Your task to perform on an android device: Open Yahoo.com Image 0: 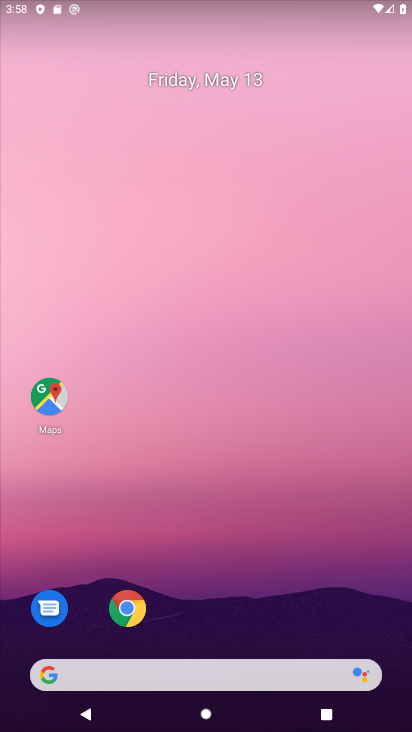
Step 0: drag from (217, 677) to (237, 2)
Your task to perform on an android device: Open Yahoo.com Image 1: 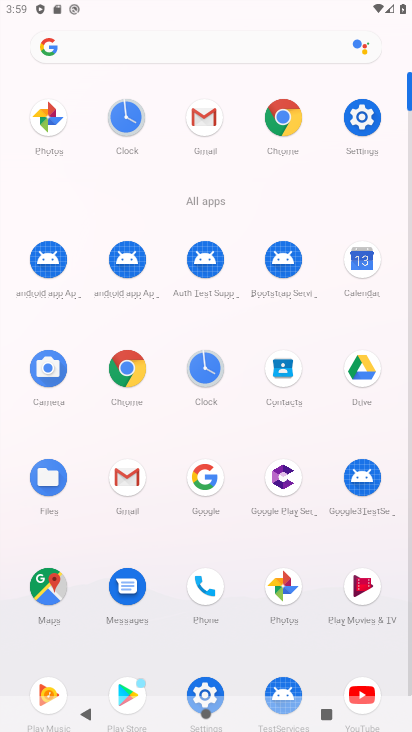
Step 1: click (137, 368)
Your task to perform on an android device: Open Yahoo.com Image 2: 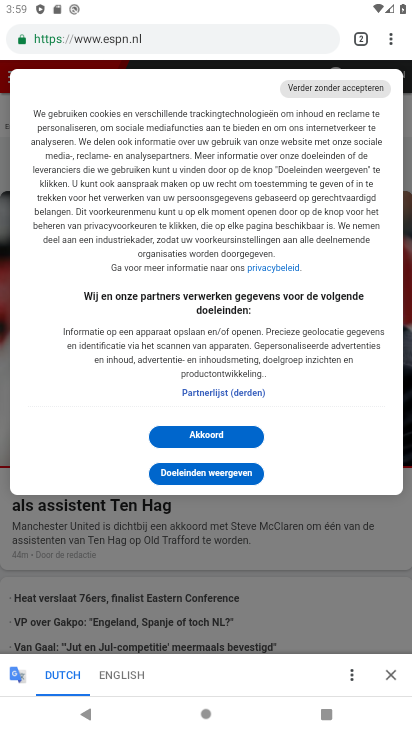
Step 2: click (302, 36)
Your task to perform on an android device: Open Yahoo.com Image 3: 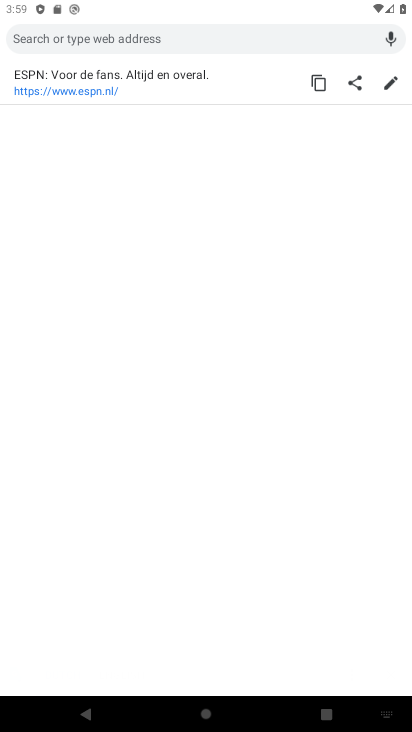
Step 3: type "yahoo.com"
Your task to perform on an android device: Open Yahoo.com Image 4: 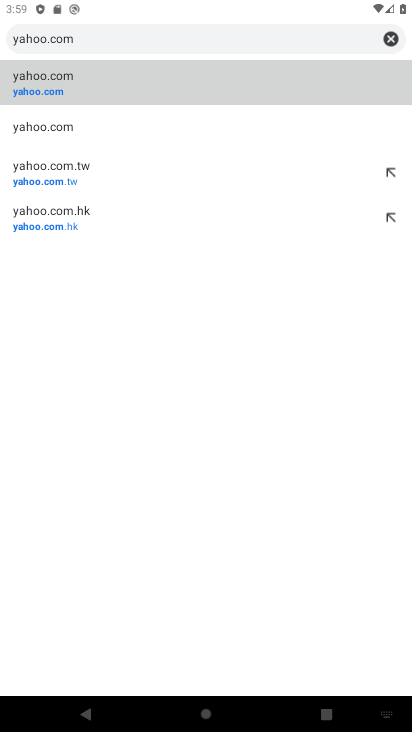
Step 4: click (120, 92)
Your task to perform on an android device: Open Yahoo.com Image 5: 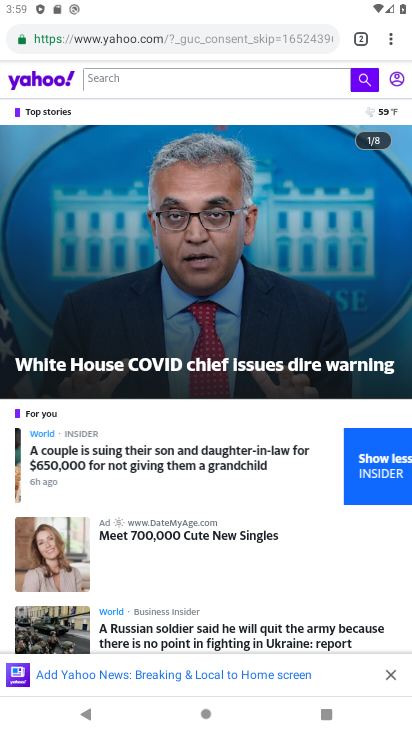
Step 5: task complete